Your task to perform on an android device: Go to Google maps Image 0: 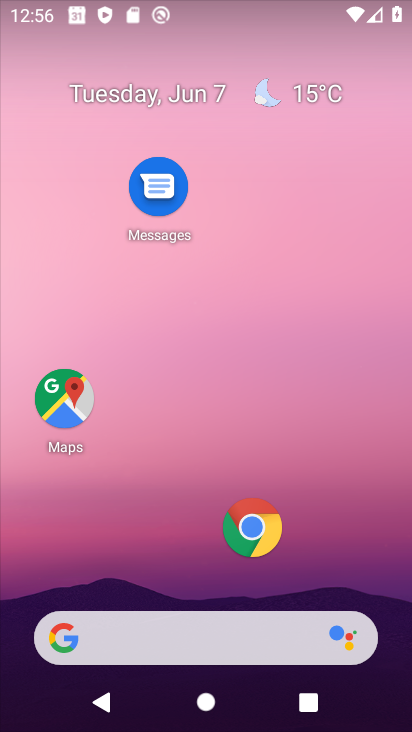
Step 0: click (76, 411)
Your task to perform on an android device: Go to Google maps Image 1: 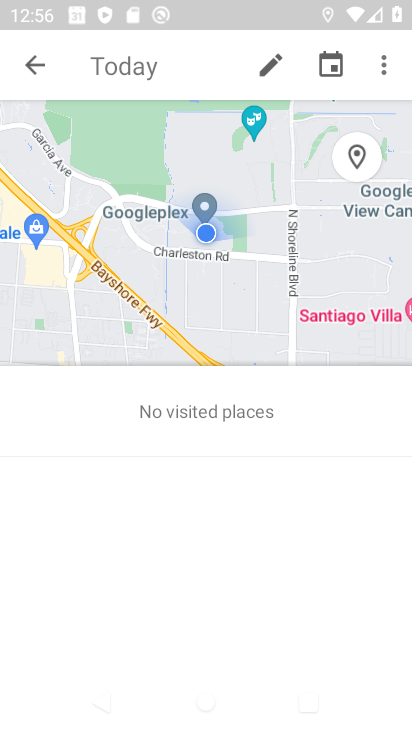
Step 1: click (29, 70)
Your task to perform on an android device: Go to Google maps Image 2: 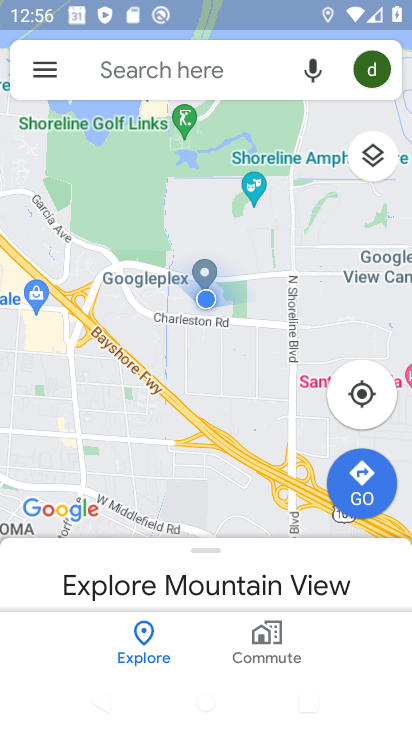
Step 2: task complete